Your task to perform on an android device: Is it going to rain tomorrow? Image 0: 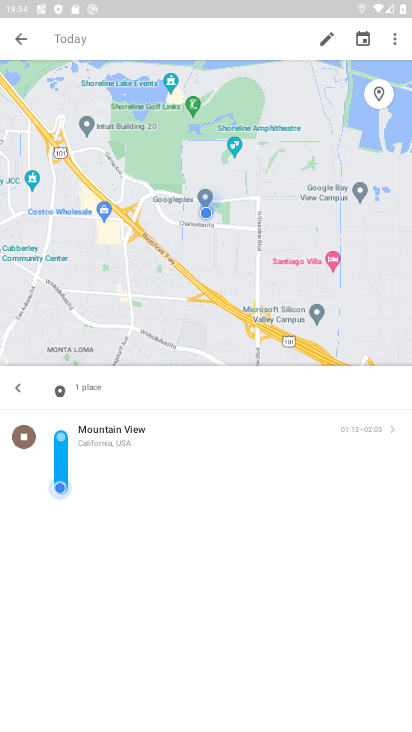
Step 0: press home button
Your task to perform on an android device: Is it going to rain tomorrow? Image 1: 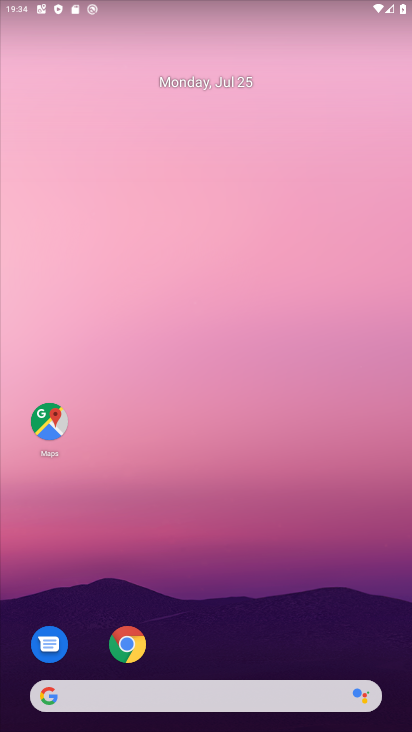
Step 1: click (189, 687)
Your task to perform on an android device: Is it going to rain tomorrow? Image 2: 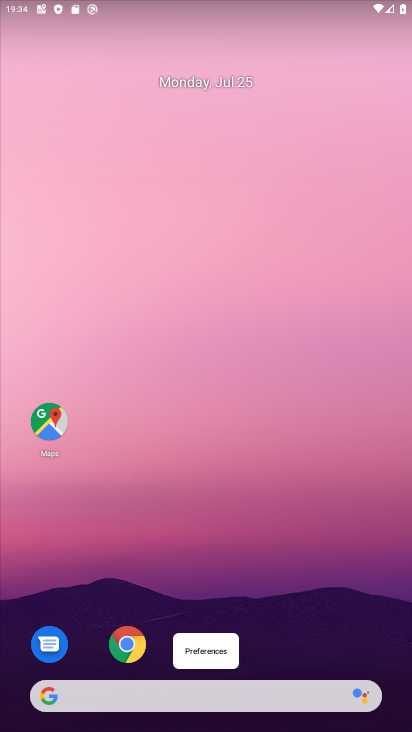
Step 2: click (182, 688)
Your task to perform on an android device: Is it going to rain tomorrow? Image 3: 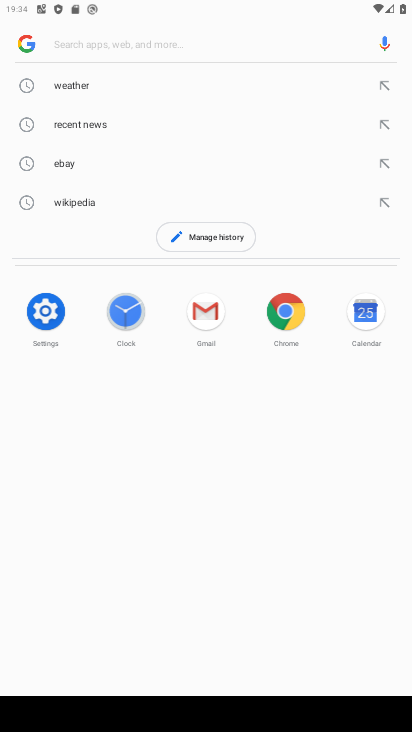
Step 3: click (105, 80)
Your task to perform on an android device: Is it going to rain tomorrow? Image 4: 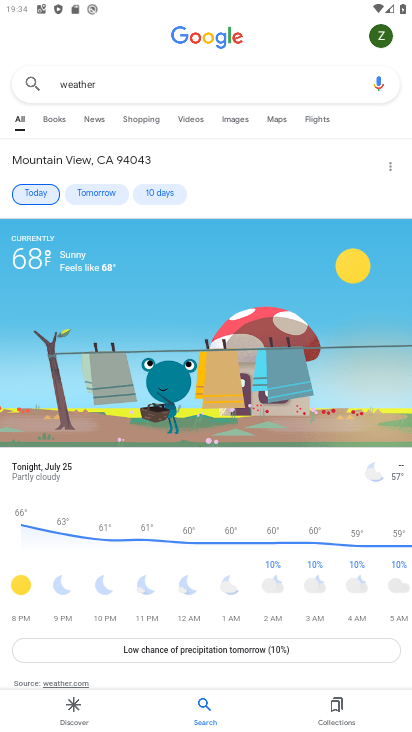
Step 4: drag from (399, 587) to (67, 607)
Your task to perform on an android device: Is it going to rain tomorrow? Image 5: 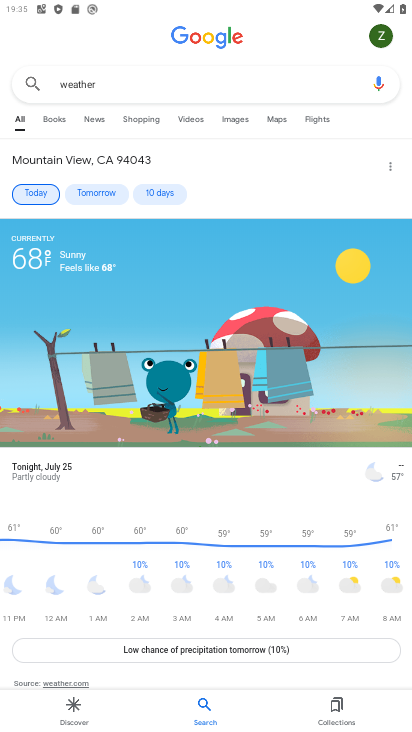
Step 5: click (95, 192)
Your task to perform on an android device: Is it going to rain tomorrow? Image 6: 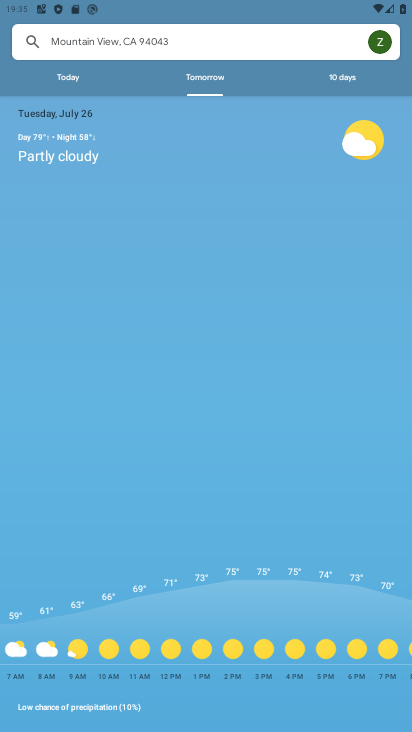
Step 6: task complete